Your task to perform on an android device: turn on wifi Image 0: 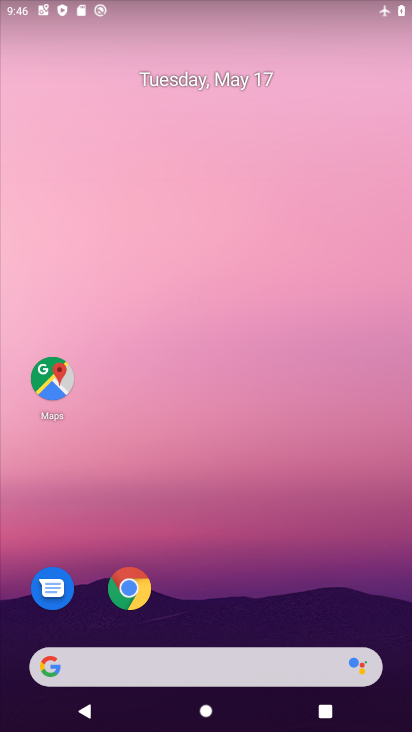
Step 0: drag from (196, 626) to (178, 58)
Your task to perform on an android device: turn on wifi Image 1: 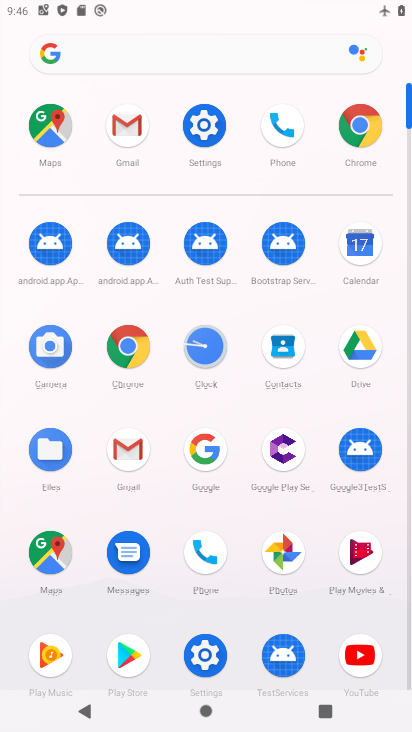
Step 1: click (211, 124)
Your task to perform on an android device: turn on wifi Image 2: 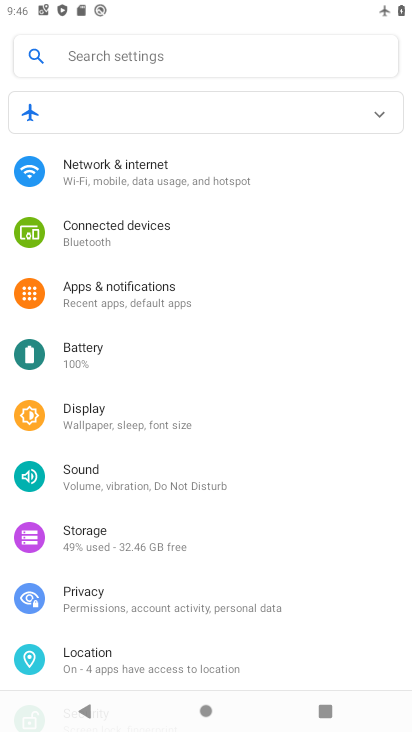
Step 2: click (128, 182)
Your task to perform on an android device: turn on wifi Image 3: 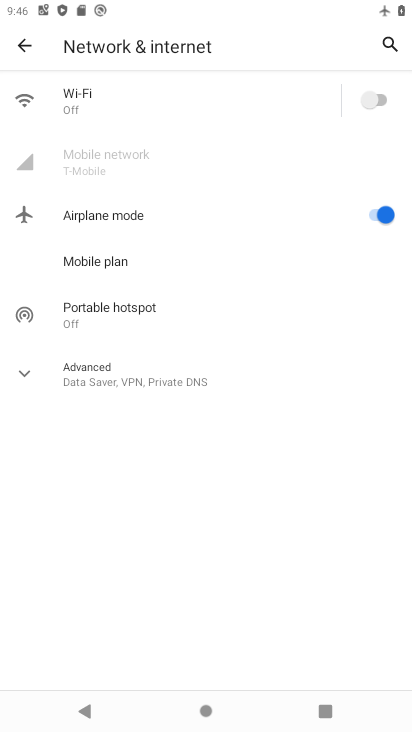
Step 3: task complete